Your task to perform on an android device: add a contact Image 0: 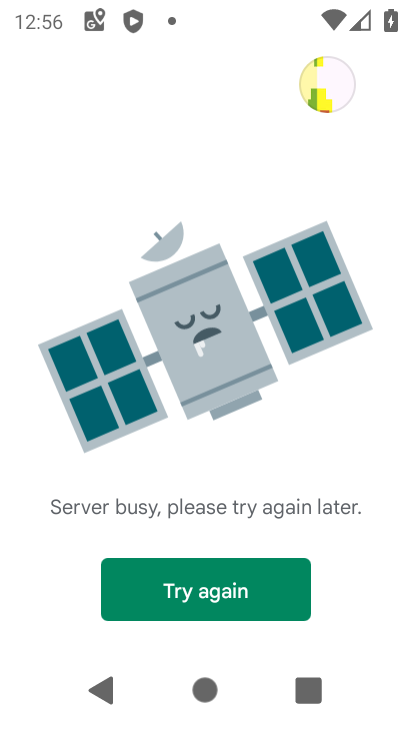
Step 0: press home button
Your task to perform on an android device: add a contact Image 1: 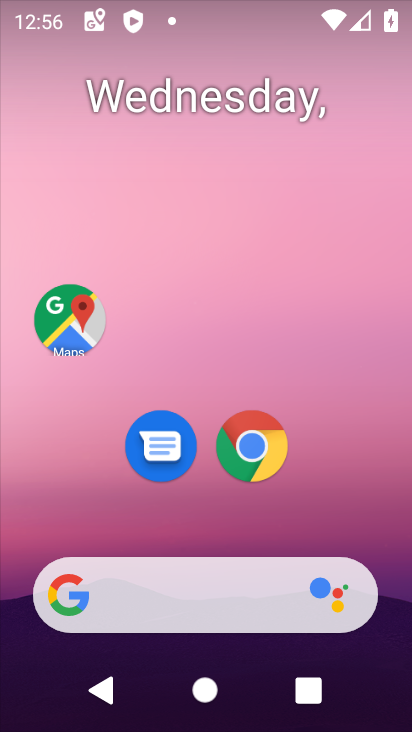
Step 1: drag from (169, 527) to (227, 6)
Your task to perform on an android device: add a contact Image 2: 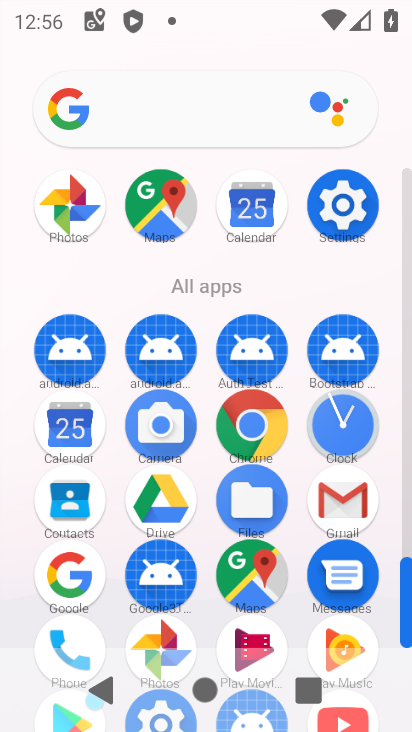
Step 2: click (67, 511)
Your task to perform on an android device: add a contact Image 3: 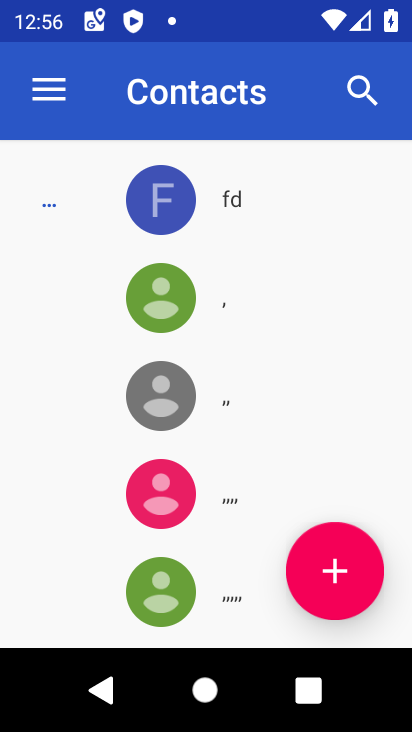
Step 3: click (330, 568)
Your task to perform on an android device: add a contact Image 4: 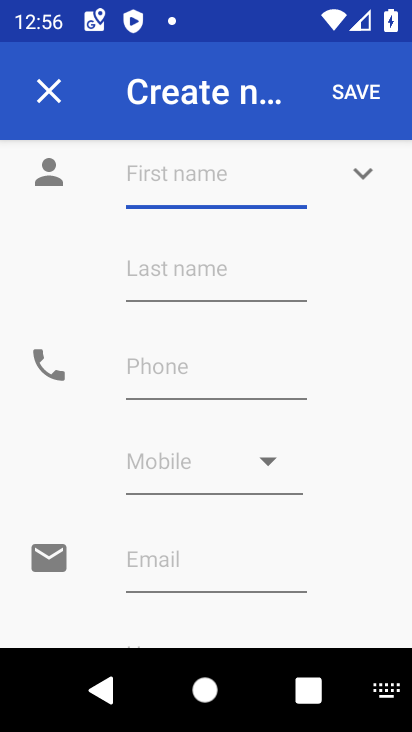
Step 4: type "njkmmkkmkjjkj"
Your task to perform on an android device: add a contact Image 5: 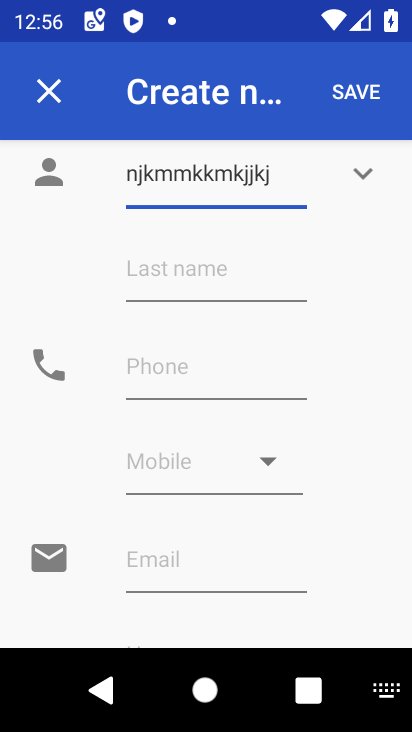
Step 5: click (177, 368)
Your task to perform on an android device: add a contact Image 6: 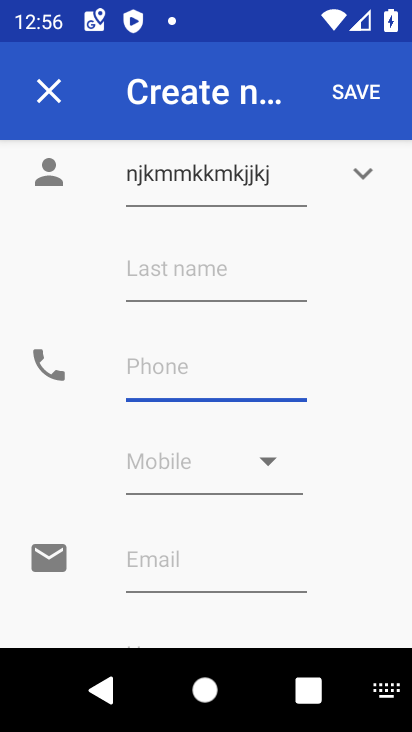
Step 6: type "98765432135"
Your task to perform on an android device: add a contact Image 7: 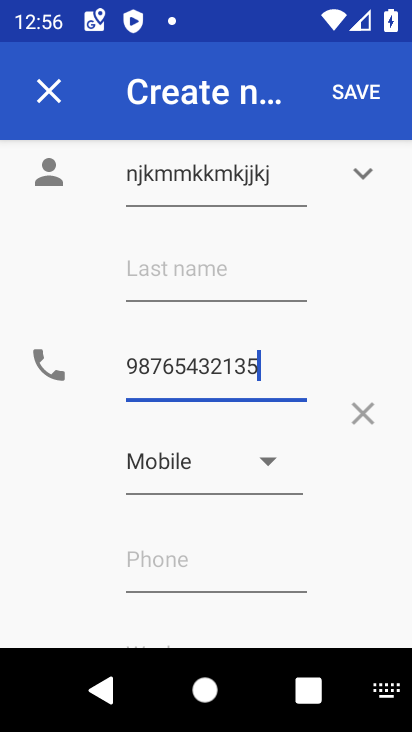
Step 7: click (348, 99)
Your task to perform on an android device: add a contact Image 8: 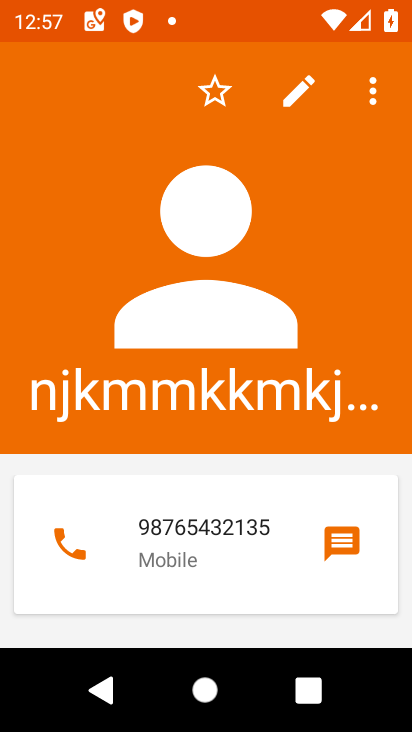
Step 8: task complete